Your task to perform on an android device: Open the calendar and show me this week's events? Image 0: 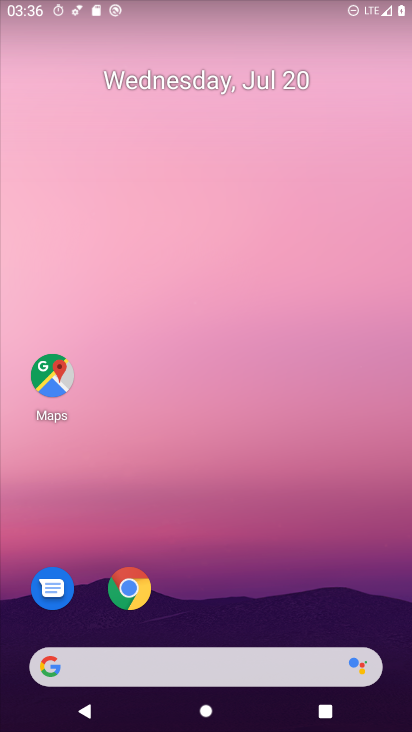
Step 0: drag from (245, 607) to (182, 33)
Your task to perform on an android device: Open the calendar and show me this week's events? Image 1: 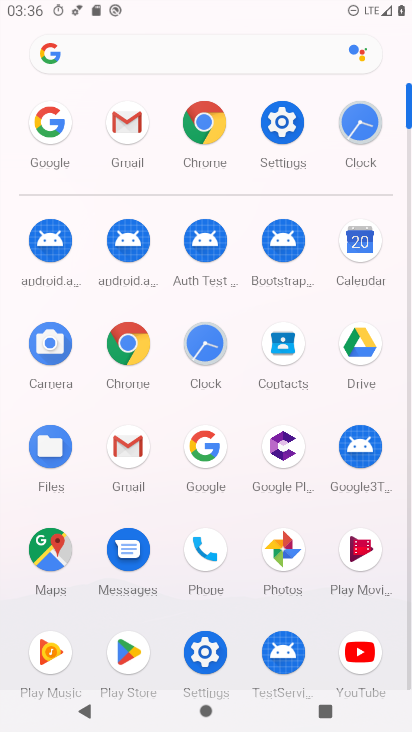
Step 1: click (372, 246)
Your task to perform on an android device: Open the calendar and show me this week's events? Image 2: 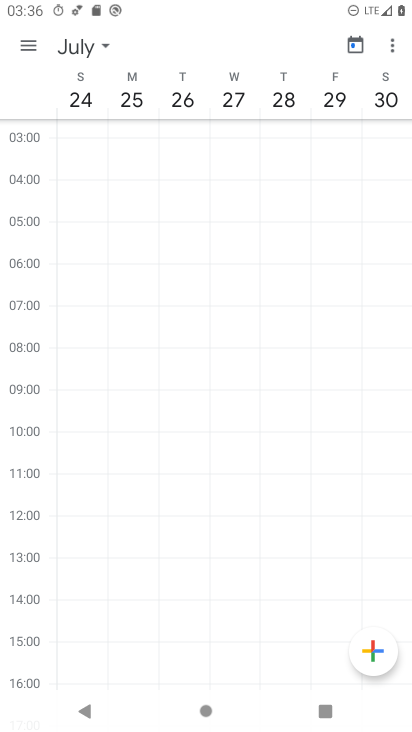
Step 2: task complete